Your task to perform on an android device: Show me popular games on the Play Store Image 0: 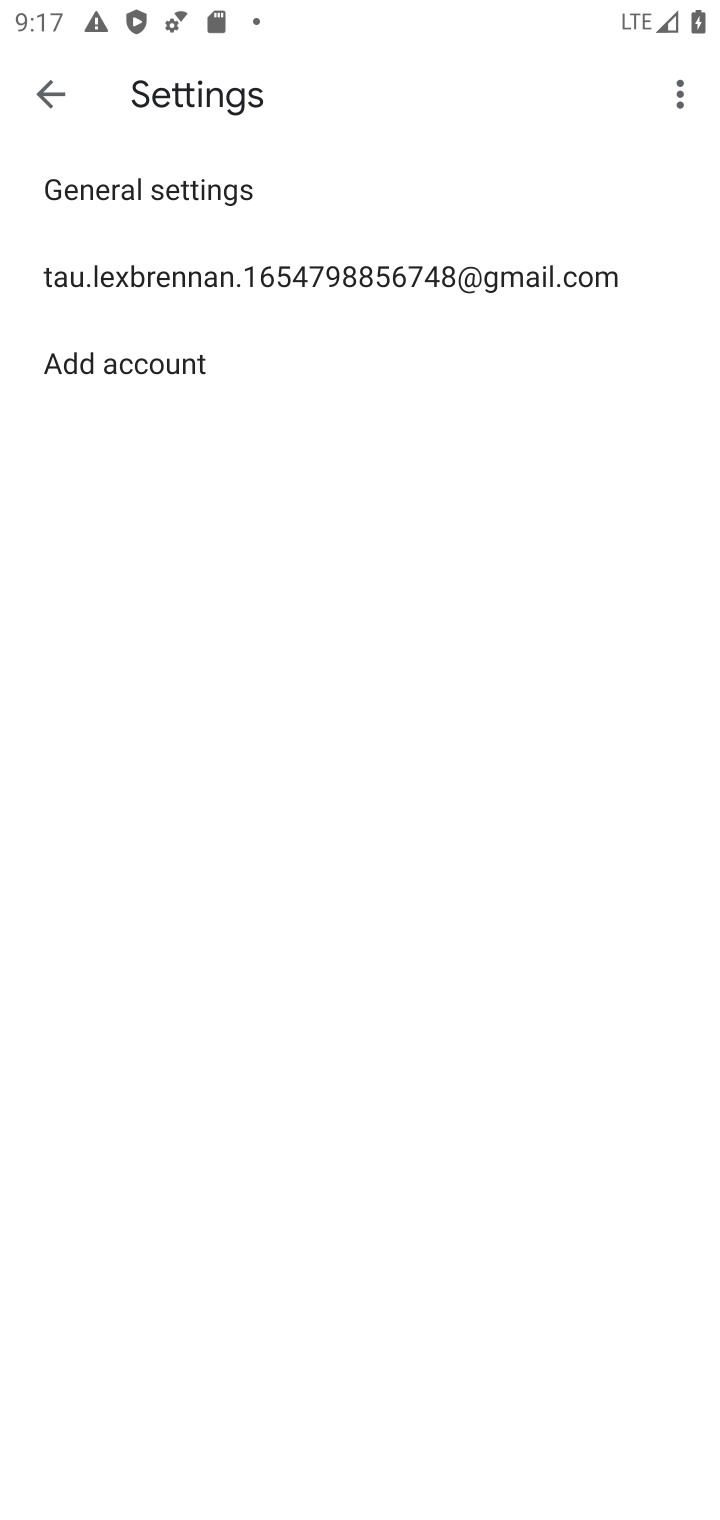
Step 0: press home button
Your task to perform on an android device: Show me popular games on the Play Store Image 1: 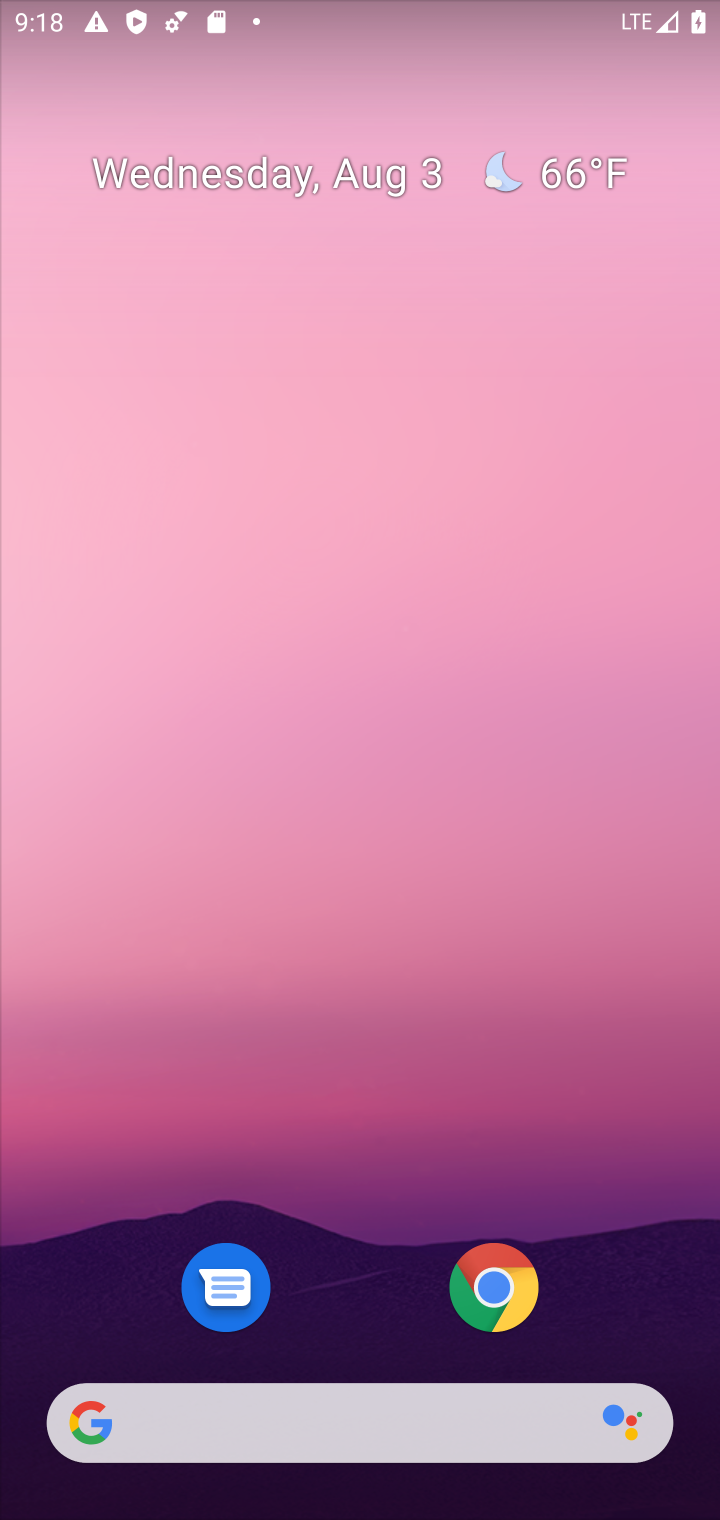
Step 1: drag from (330, 991) to (309, 64)
Your task to perform on an android device: Show me popular games on the Play Store Image 2: 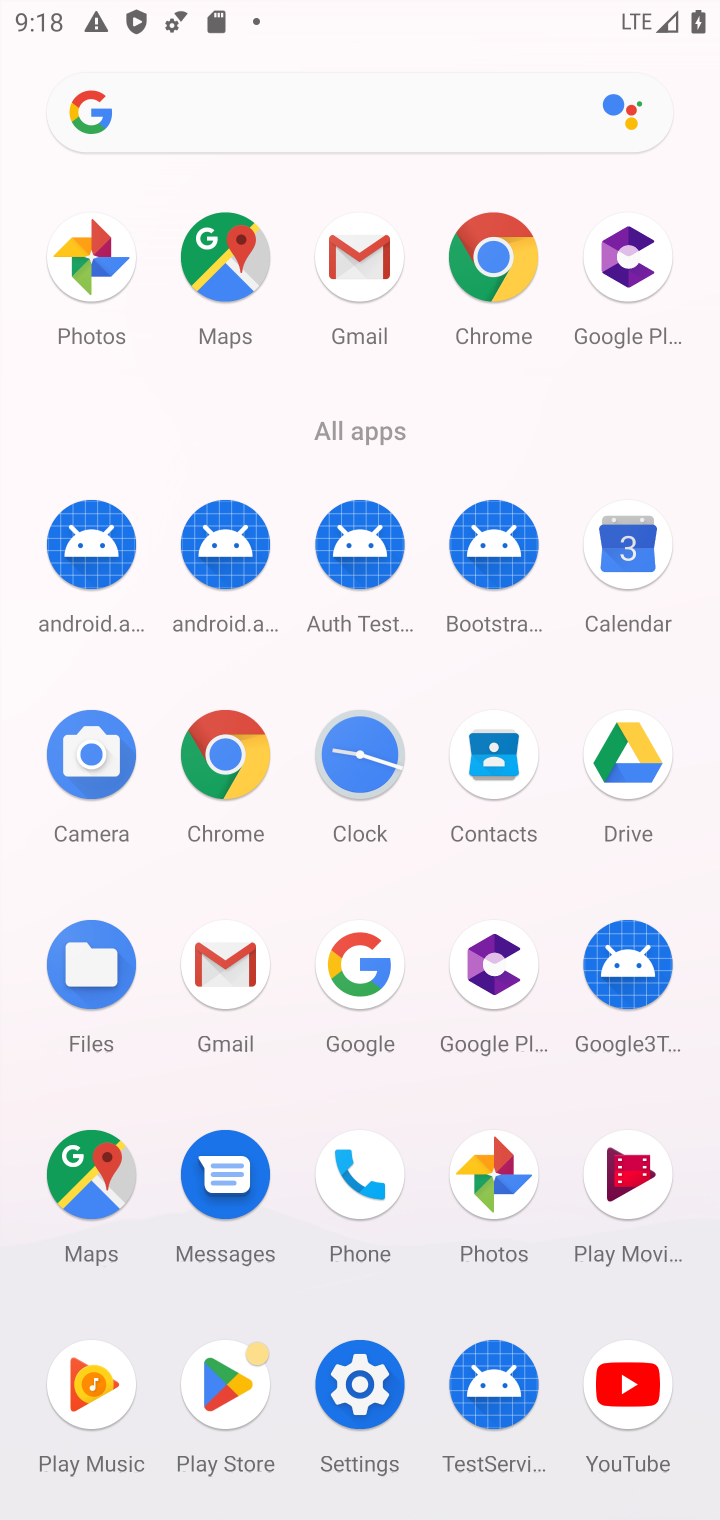
Step 2: click (223, 1353)
Your task to perform on an android device: Show me popular games on the Play Store Image 3: 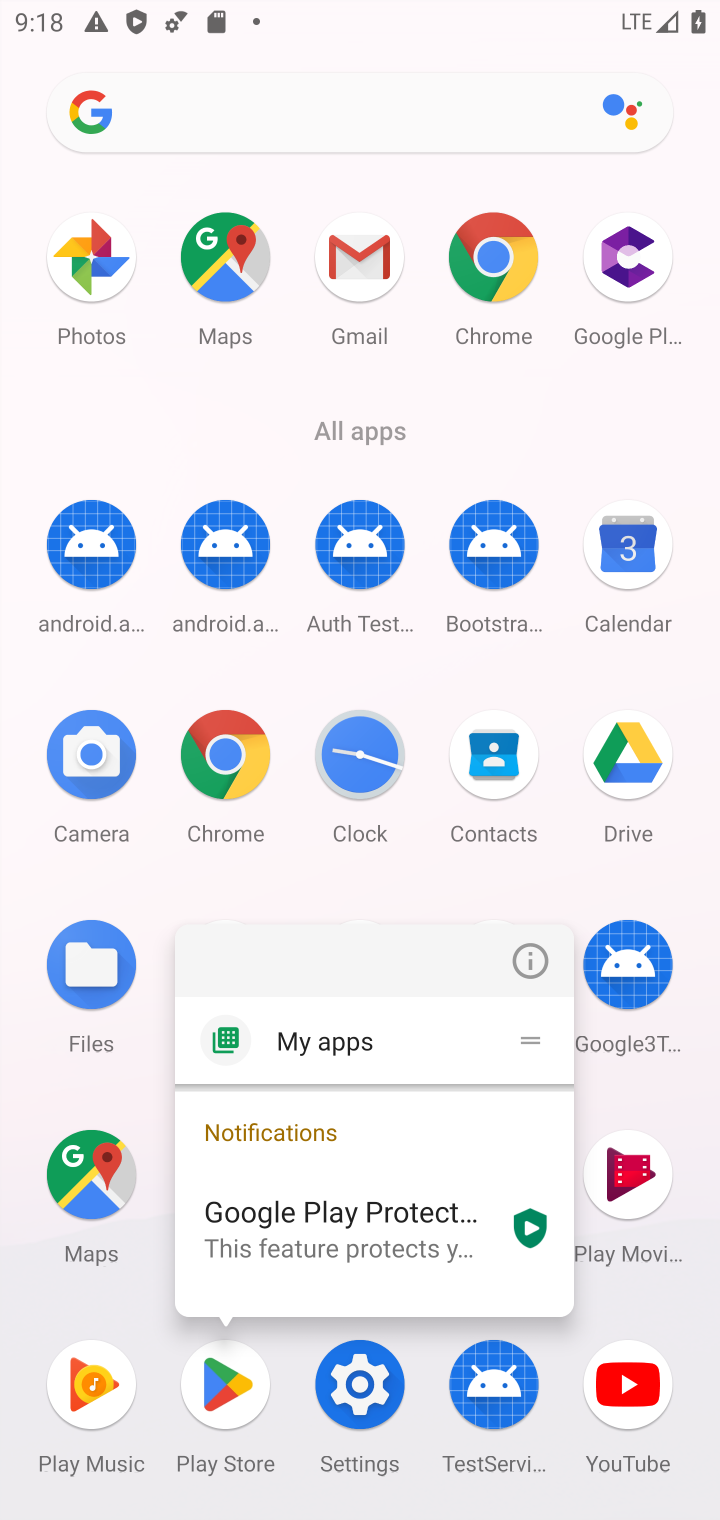
Step 3: click (225, 1390)
Your task to perform on an android device: Show me popular games on the Play Store Image 4: 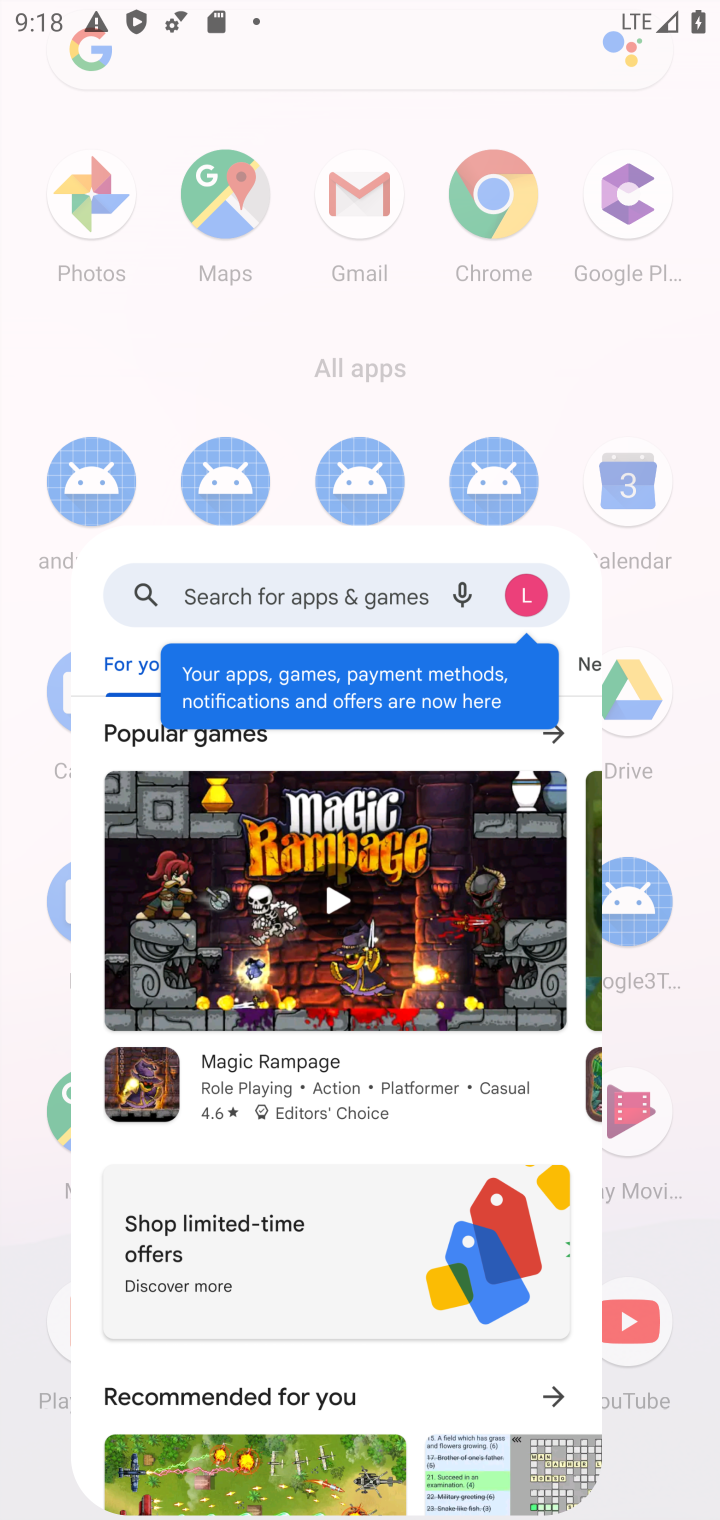
Step 4: click (225, 1390)
Your task to perform on an android device: Show me popular games on the Play Store Image 5: 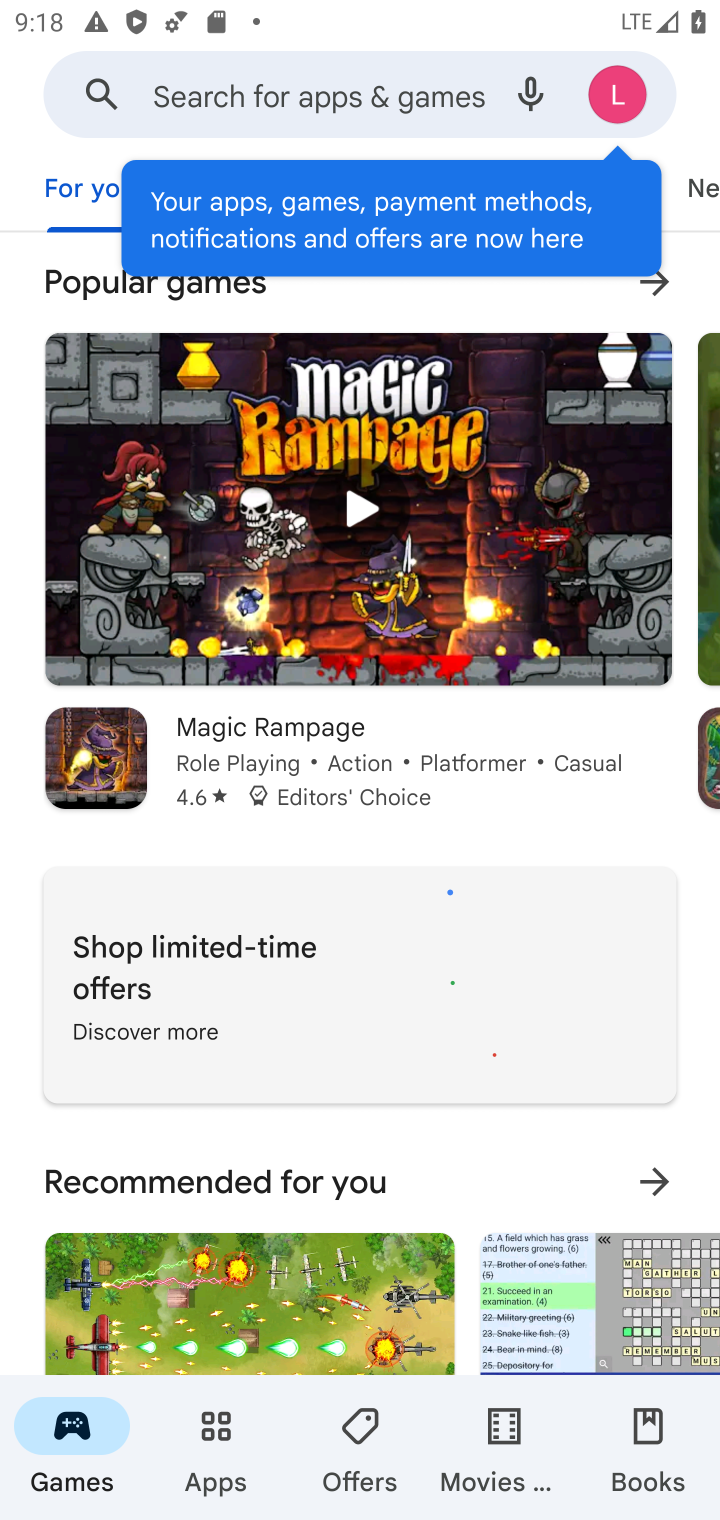
Step 5: click (306, 91)
Your task to perform on an android device: Show me popular games on the Play Store Image 6: 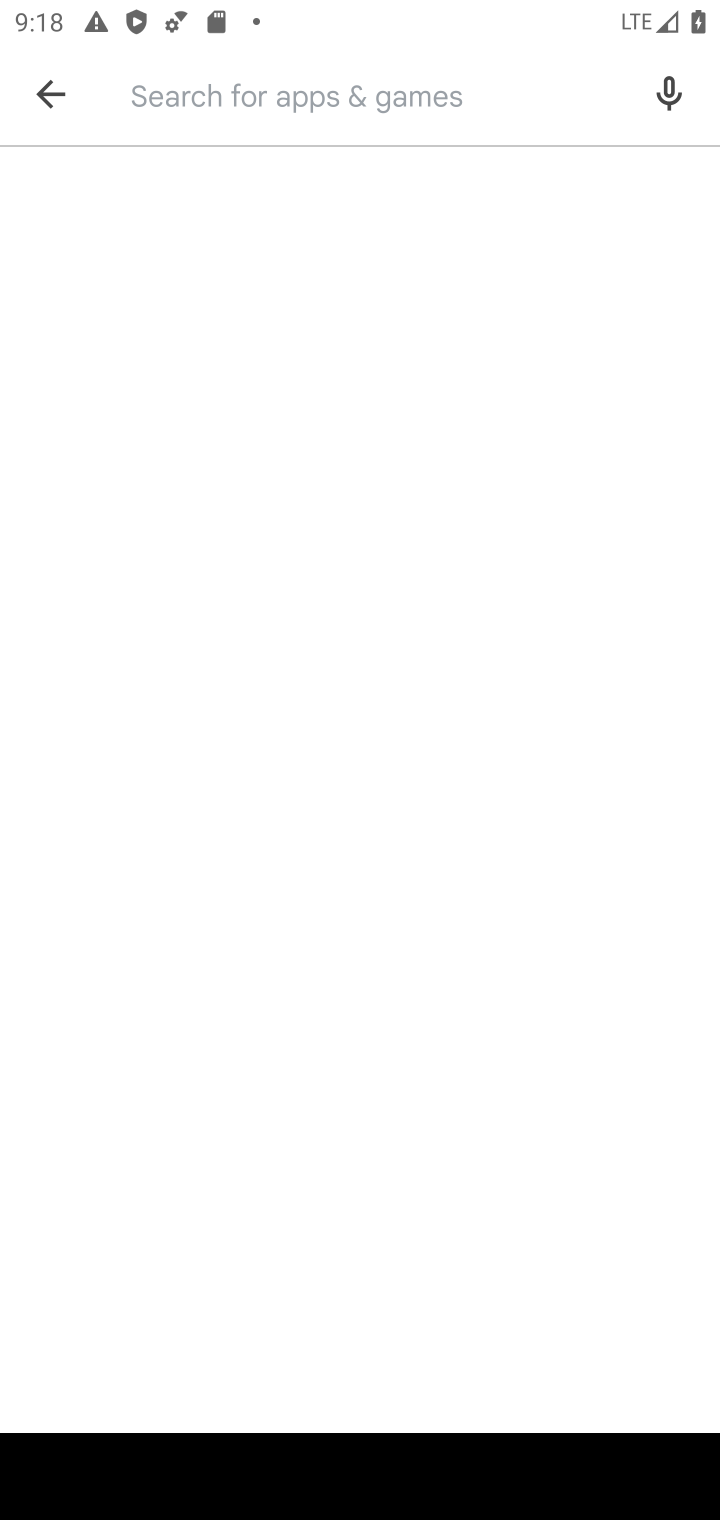
Step 6: type "popular games "
Your task to perform on an android device: Show me popular games on the Play Store Image 7: 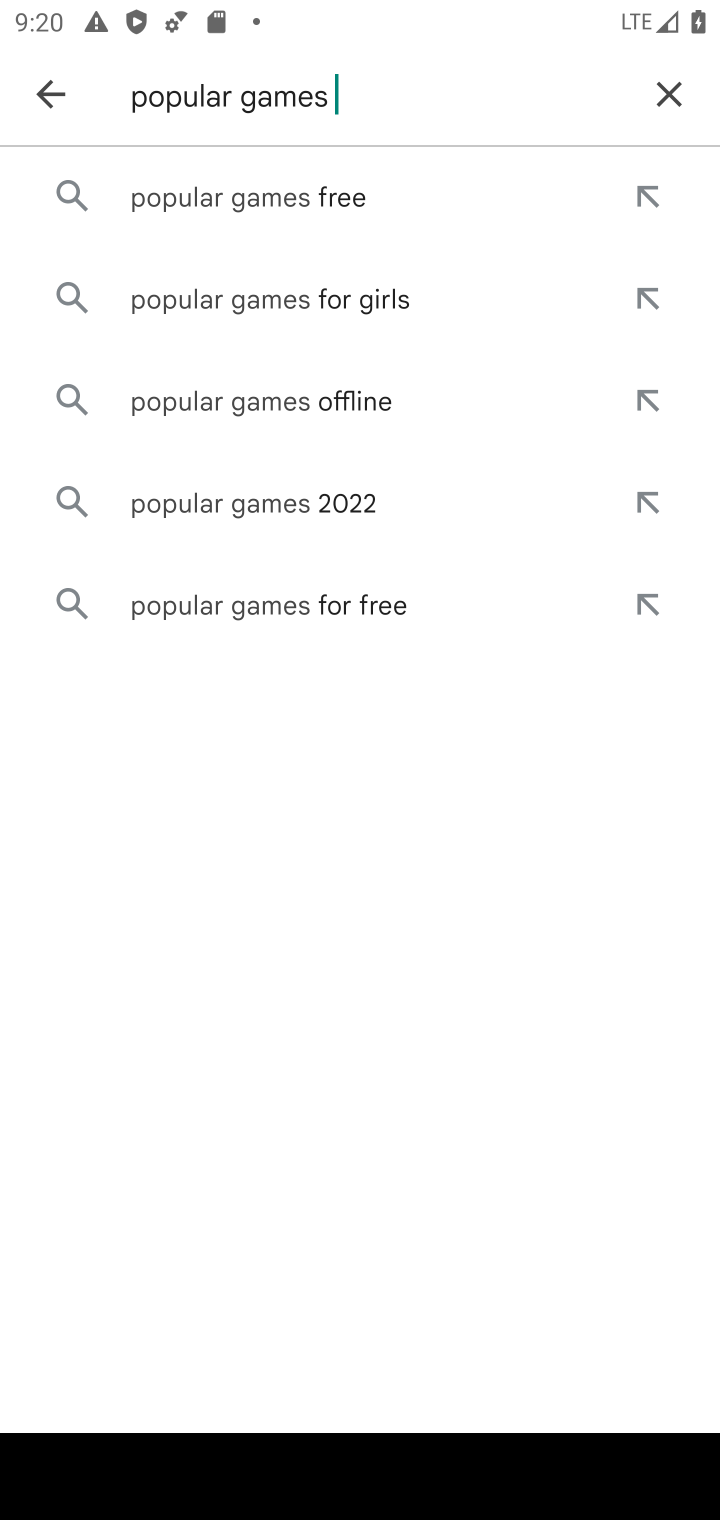
Step 7: click (256, 207)
Your task to perform on an android device: Show me popular games on the Play Store Image 8: 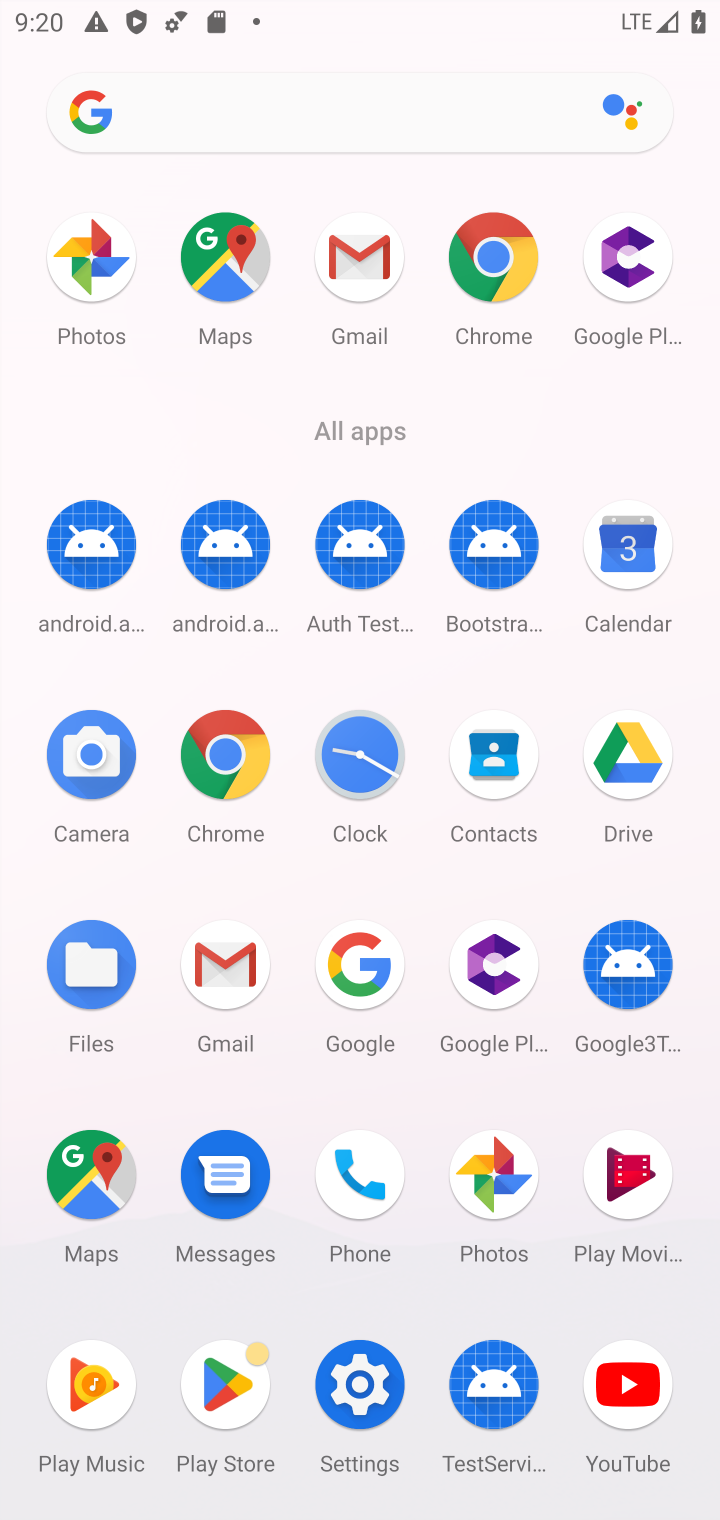
Step 8: task complete